Your task to perform on an android device: find snoozed emails in the gmail app Image 0: 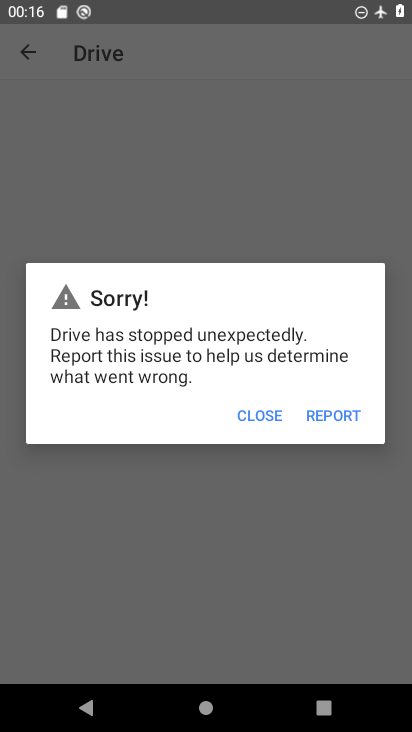
Step 0: press home button
Your task to perform on an android device: find snoozed emails in the gmail app Image 1: 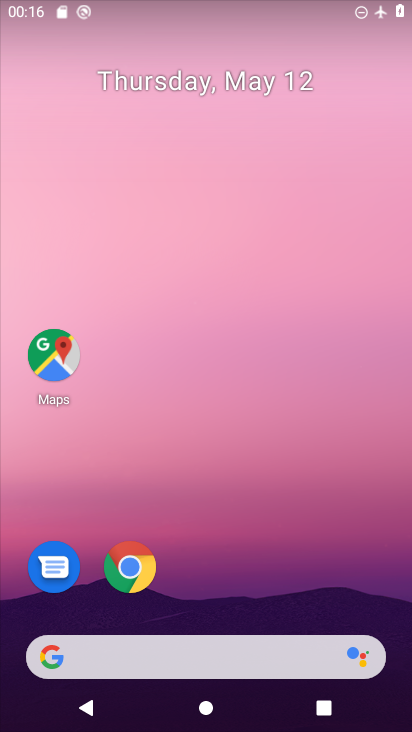
Step 1: drag from (244, 706) to (267, 212)
Your task to perform on an android device: find snoozed emails in the gmail app Image 2: 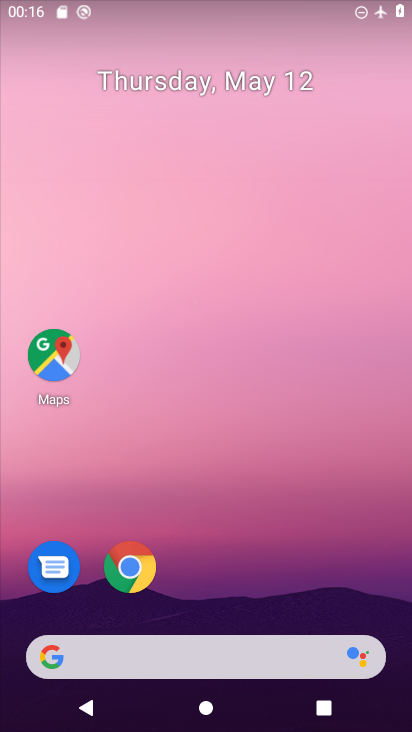
Step 2: drag from (240, 721) to (268, 37)
Your task to perform on an android device: find snoozed emails in the gmail app Image 3: 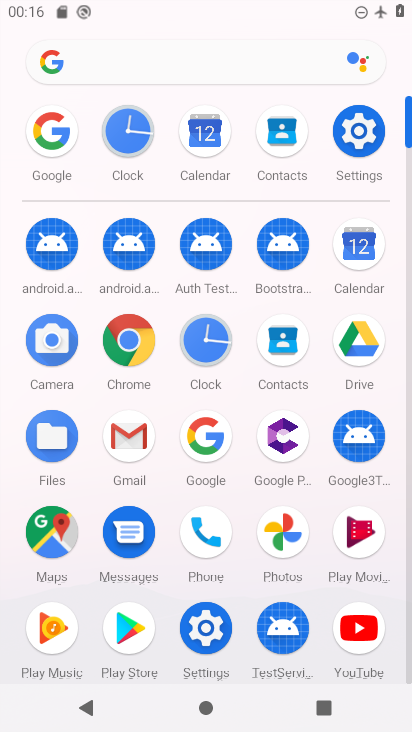
Step 3: click (148, 443)
Your task to perform on an android device: find snoozed emails in the gmail app Image 4: 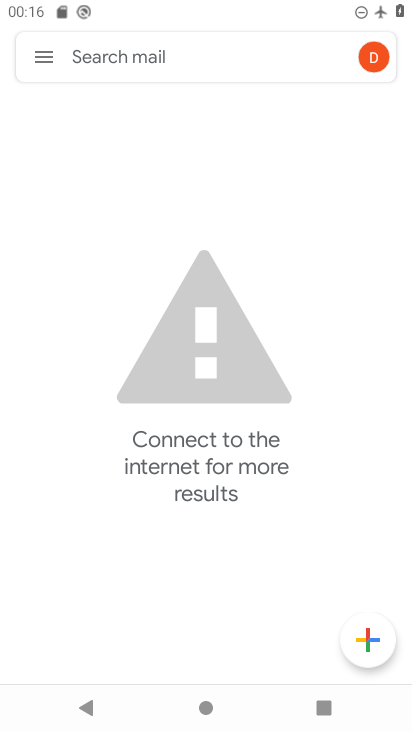
Step 4: task complete